Your task to perform on an android device: change keyboard looks Image 0: 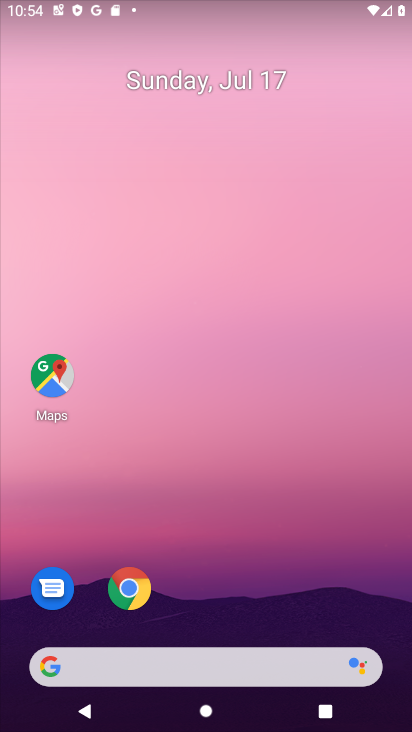
Step 0: drag from (221, 624) to (227, 55)
Your task to perform on an android device: change keyboard looks Image 1: 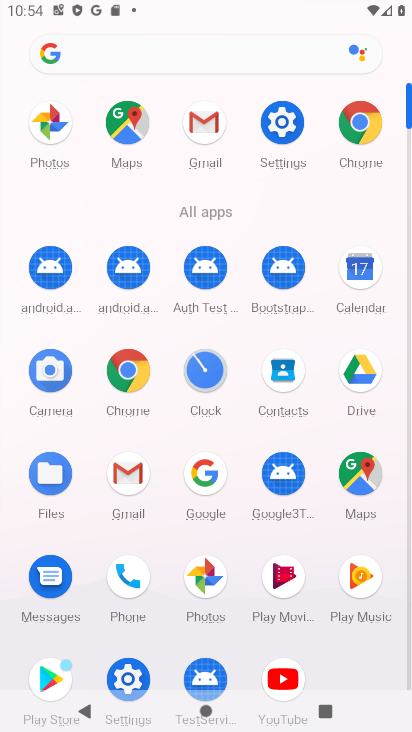
Step 1: click (282, 113)
Your task to perform on an android device: change keyboard looks Image 2: 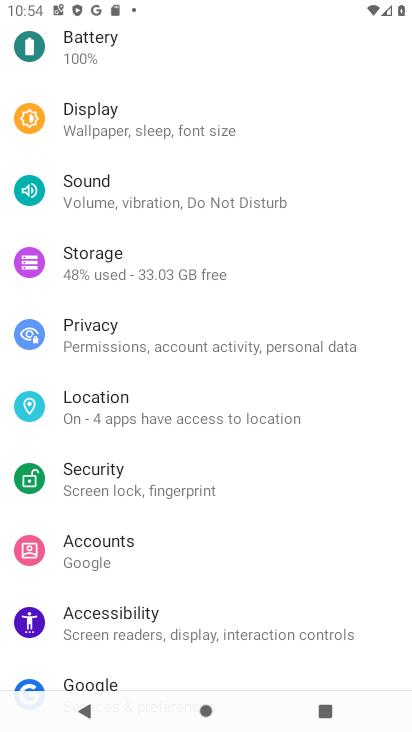
Step 2: drag from (160, 633) to (240, 316)
Your task to perform on an android device: change keyboard looks Image 3: 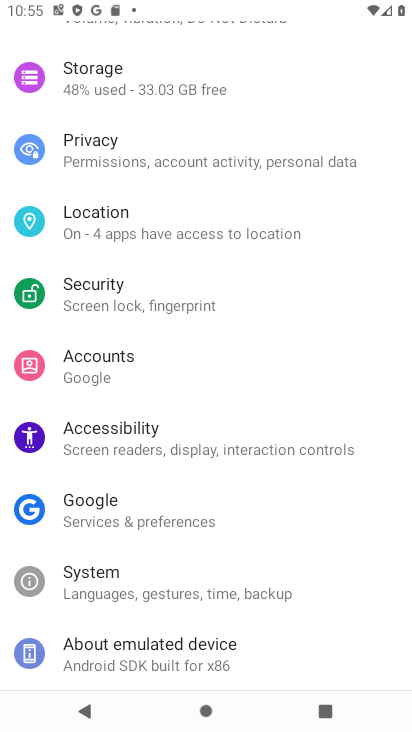
Step 3: click (135, 574)
Your task to perform on an android device: change keyboard looks Image 4: 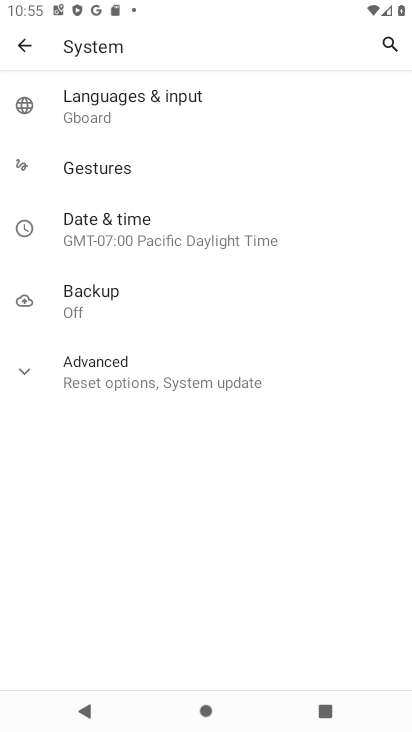
Step 4: click (126, 105)
Your task to perform on an android device: change keyboard looks Image 5: 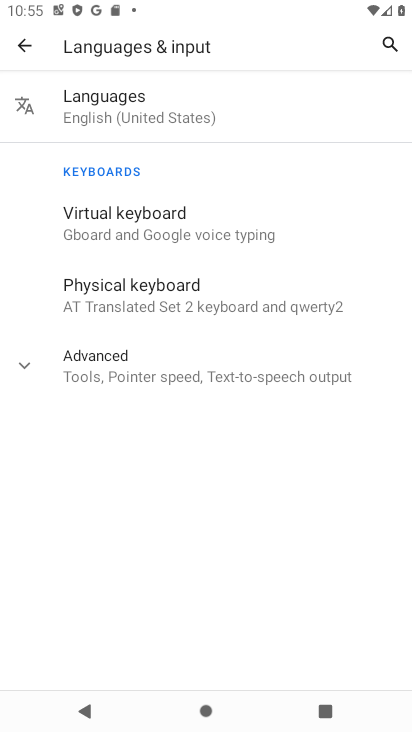
Step 5: click (162, 224)
Your task to perform on an android device: change keyboard looks Image 6: 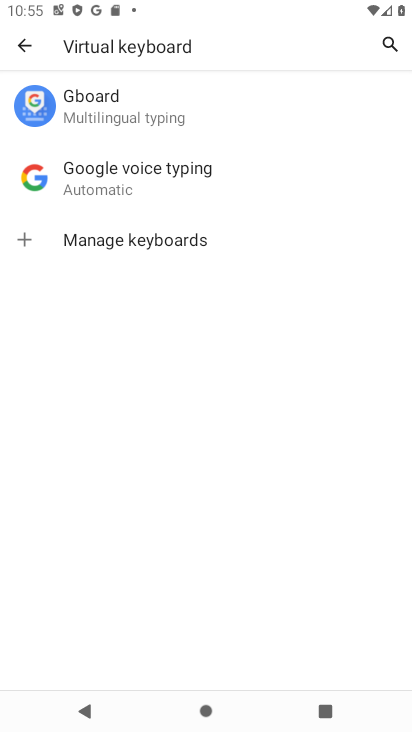
Step 6: click (134, 105)
Your task to perform on an android device: change keyboard looks Image 7: 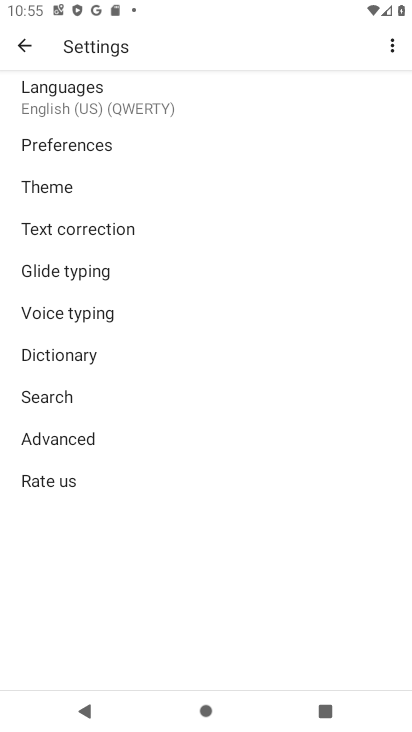
Step 7: click (78, 181)
Your task to perform on an android device: change keyboard looks Image 8: 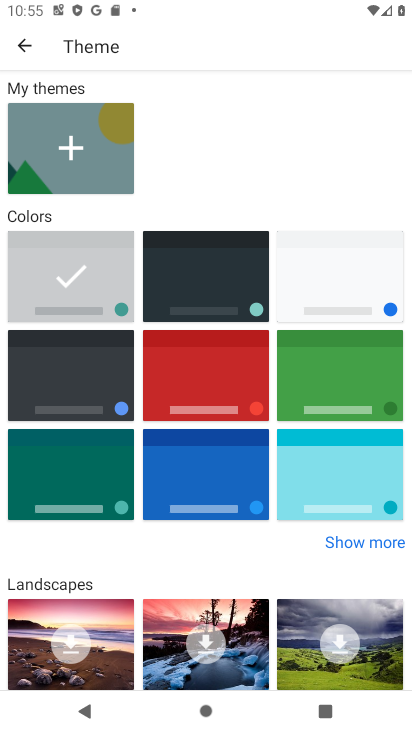
Step 8: click (201, 382)
Your task to perform on an android device: change keyboard looks Image 9: 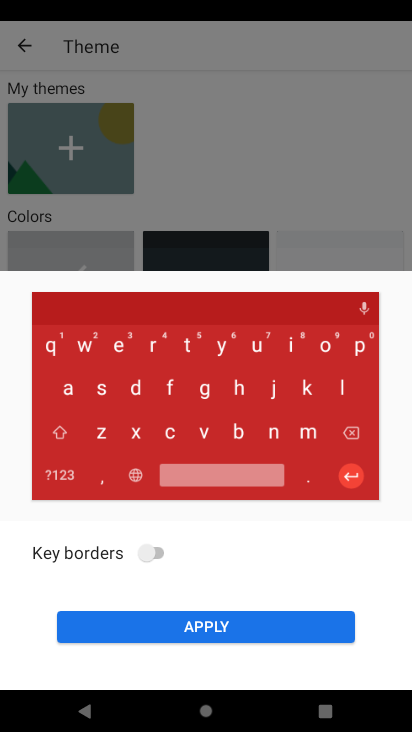
Step 9: click (205, 631)
Your task to perform on an android device: change keyboard looks Image 10: 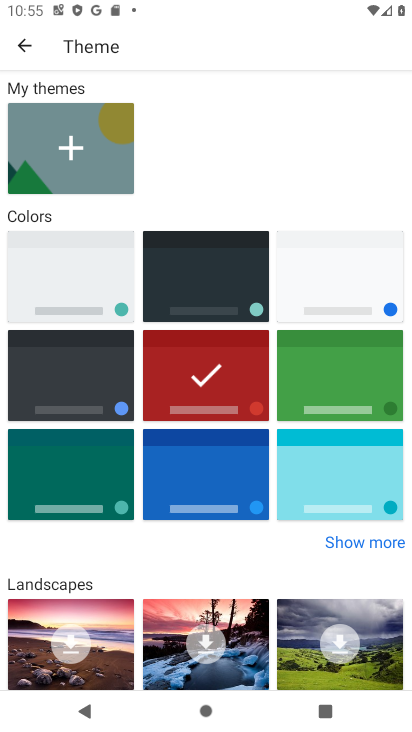
Step 10: task complete